Your task to perform on an android device: change the clock display to digital Image 0: 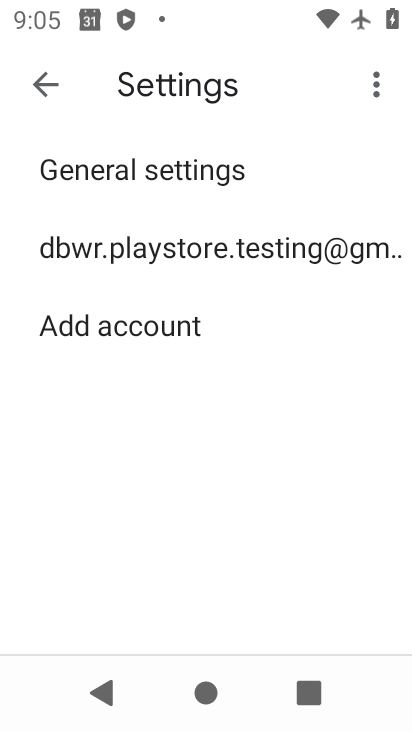
Step 0: press home button
Your task to perform on an android device: change the clock display to digital Image 1: 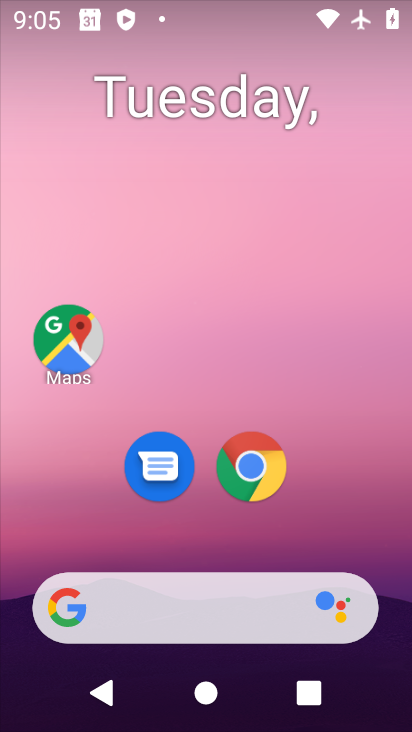
Step 1: drag from (354, 409) to (270, 68)
Your task to perform on an android device: change the clock display to digital Image 2: 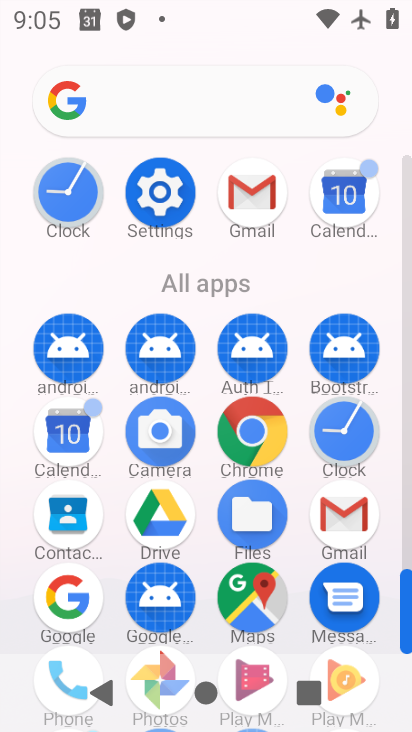
Step 2: click (343, 445)
Your task to perform on an android device: change the clock display to digital Image 3: 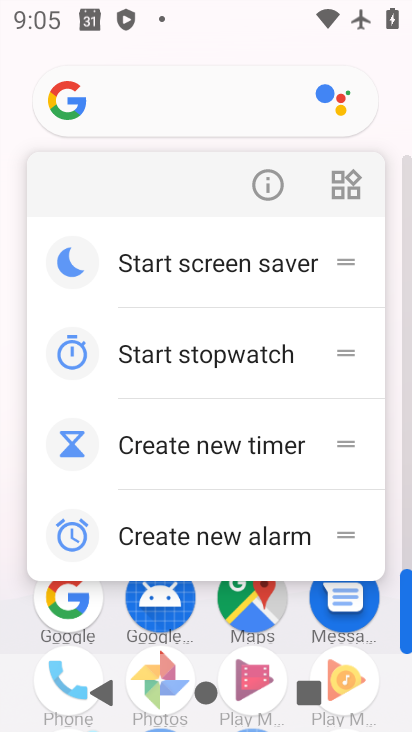
Step 3: click (218, 83)
Your task to perform on an android device: change the clock display to digital Image 4: 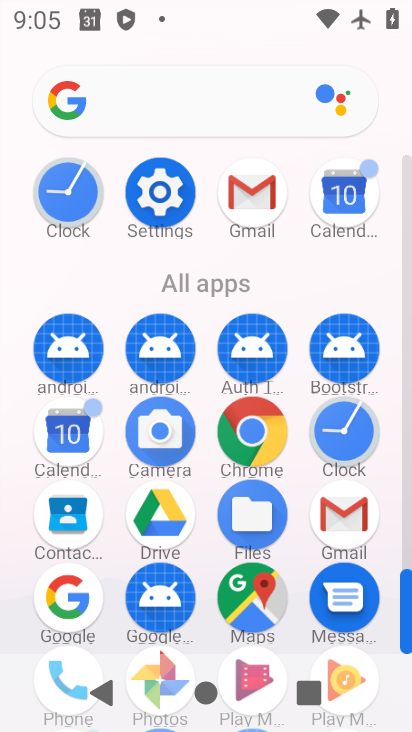
Step 4: click (339, 421)
Your task to perform on an android device: change the clock display to digital Image 5: 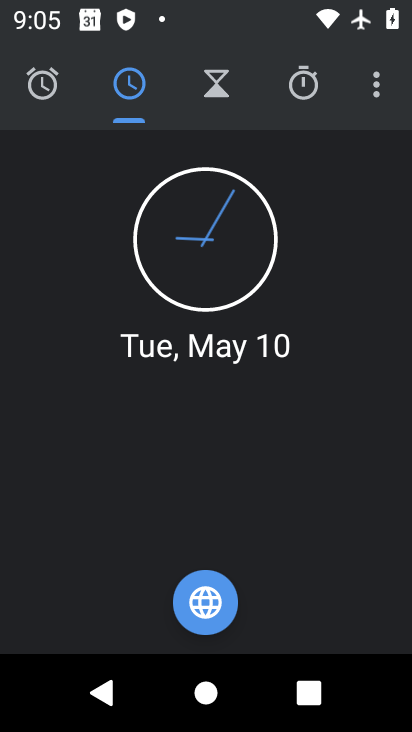
Step 5: click (374, 90)
Your task to perform on an android device: change the clock display to digital Image 6: 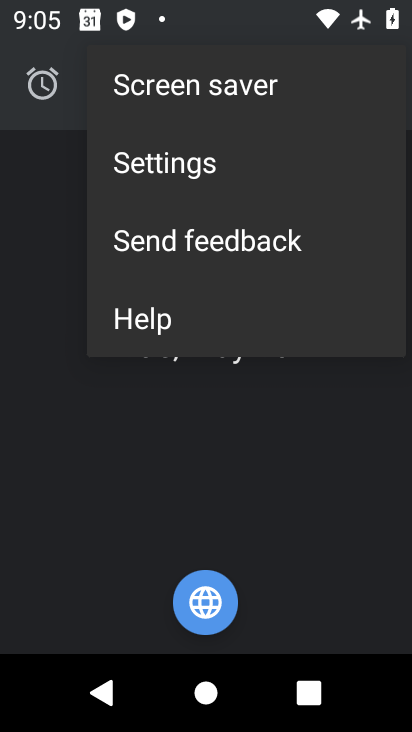
Step 6: click (179, 160)
Your task to perform on an android device: change the clock display to digital Image 7: 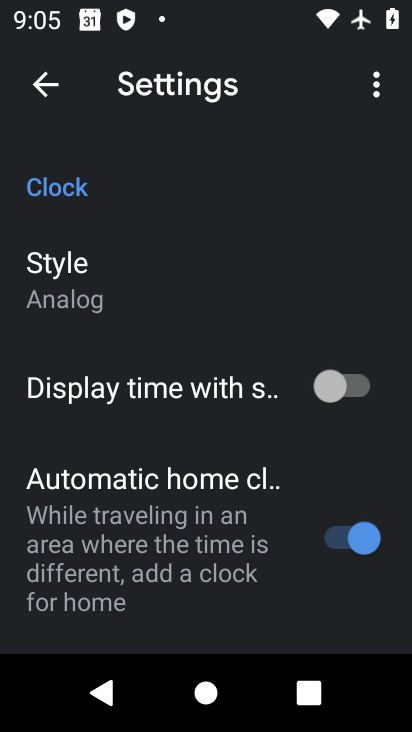
Step 7: click (76, 274)
Your task to perform on an android device: change the clock display to digital Image 8: 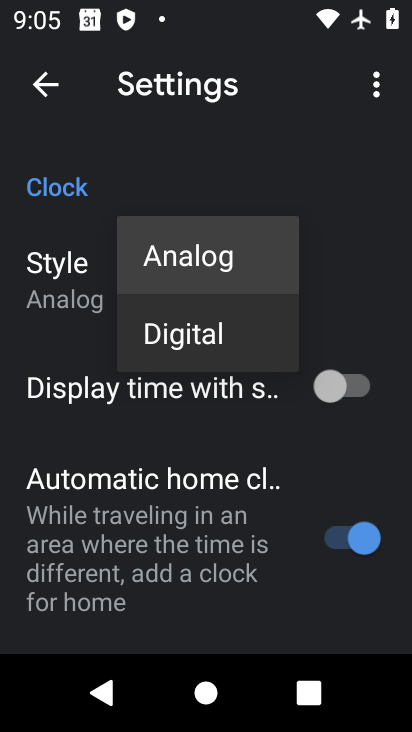
Step 8: click (165, 341)
Your task to perform on an android device: change the clock display to digital Image 9: 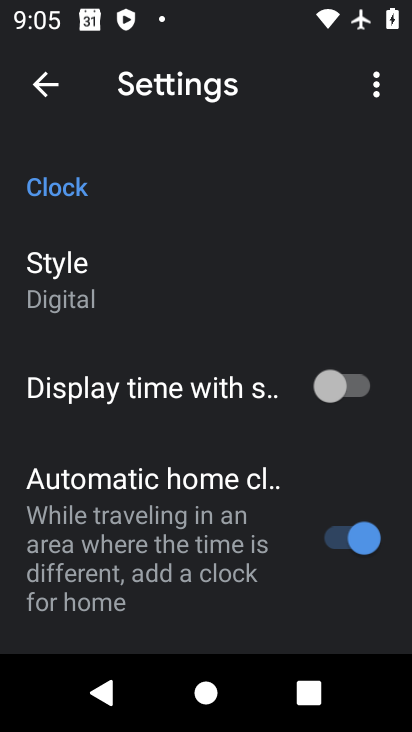
Step 9: task complete